Your task to perform on an android device: set the timer Image 0: 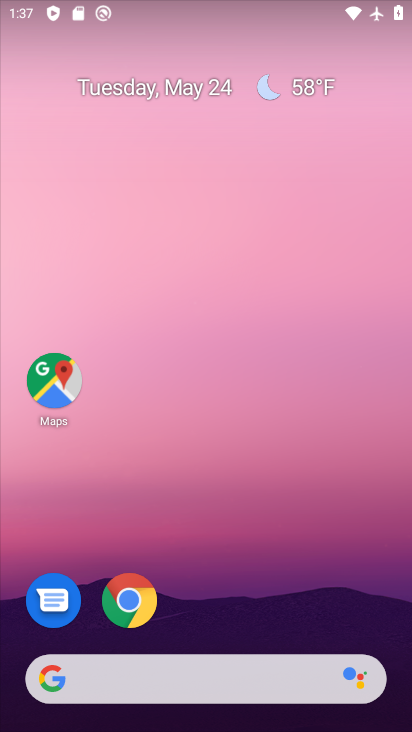
Step 0: drag from (286, 608) to (192, 49)
Your task to perform on an android device: set the timer Image 1: 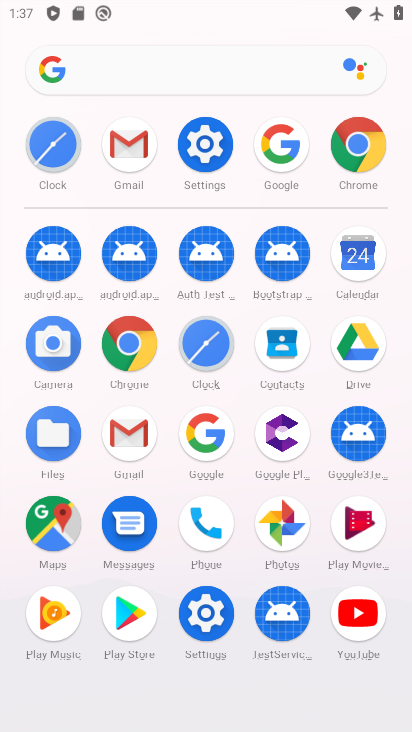
Step 1: click (221, 143)
Your task to perform on an android device: set the timer Image 2: 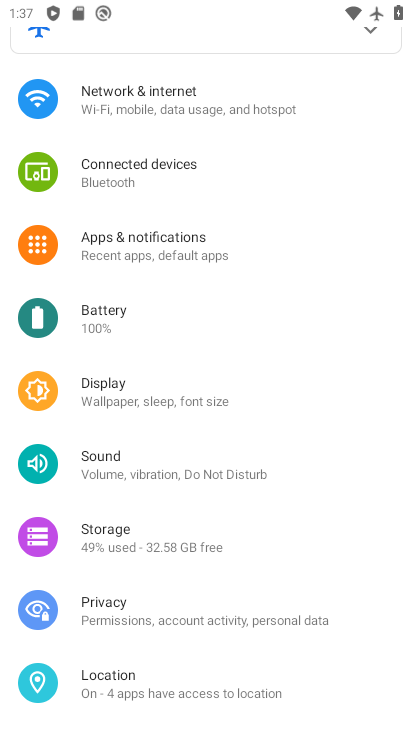
Step 2: press back button
Your task to perform on an android device: set the timer Image 3: 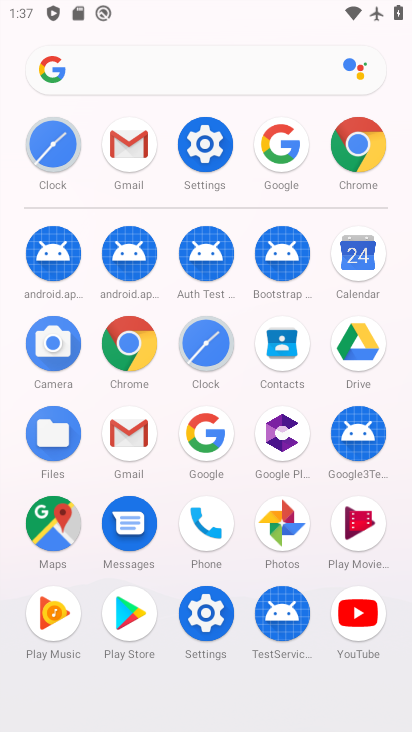
Step 3: click (213, 153)
Your task to perform on an android device: set the timer Image 4: 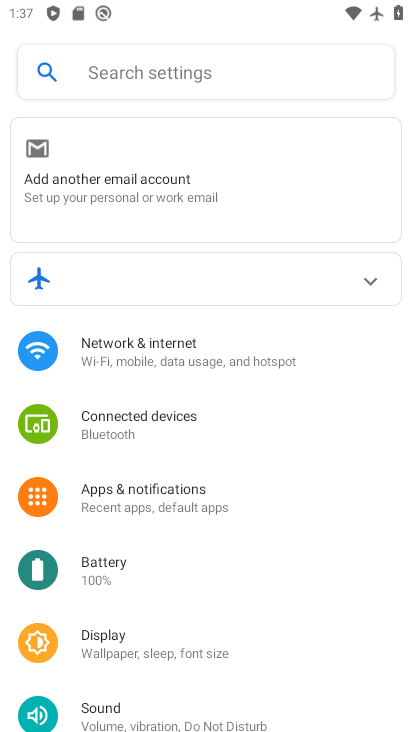
Step 4: drag from (247, 663) to (230, 256)
Your task to perform on an android device: set the timer Image 5: 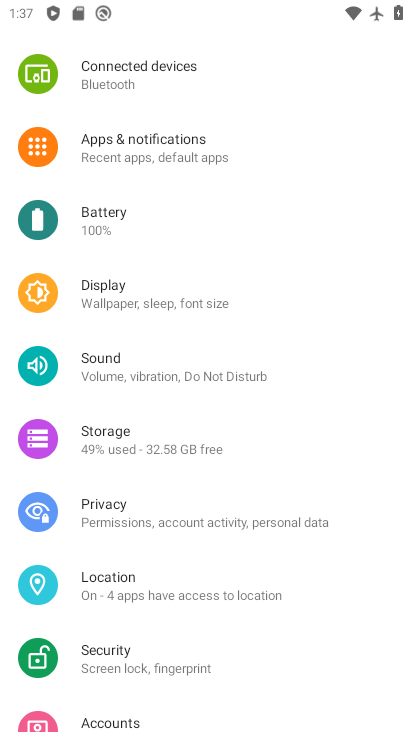
Step 5: press home button
Your task to perform on an android device: set the timer Image 6: 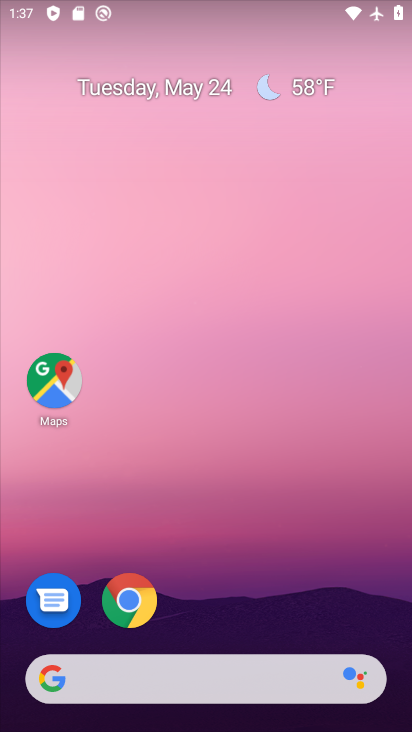
Step 6: drag from (298, 574) to (217, 74)
Your task to perform on an android device: set the timer Image 7: 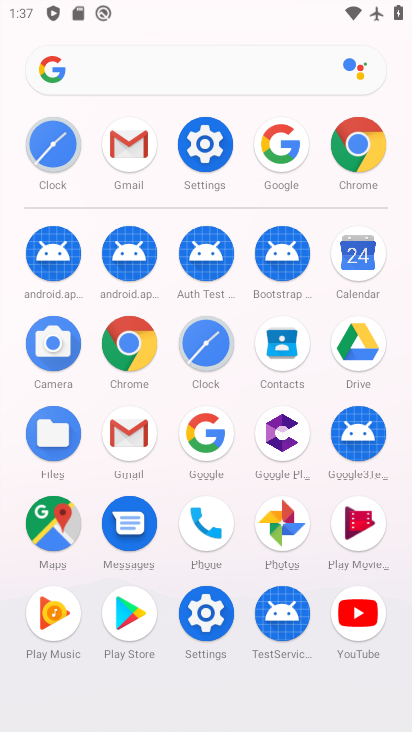
Step 7: click (206, 353)
Your task to perform on an android device: set the timer Image 8: 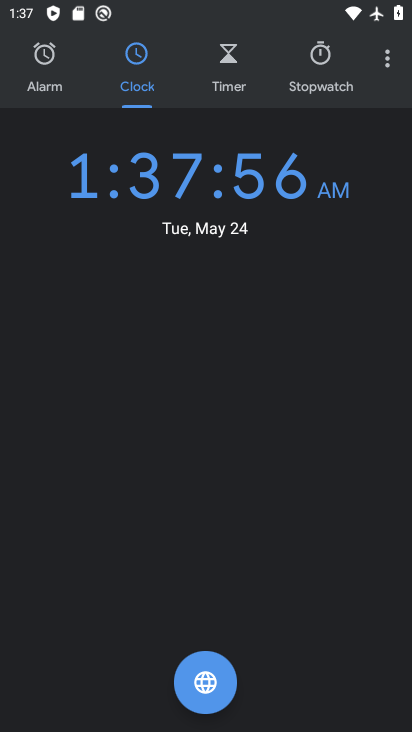
Step 8: click (230, 67)
Your task to perform on an android device: set the timer Image 9: 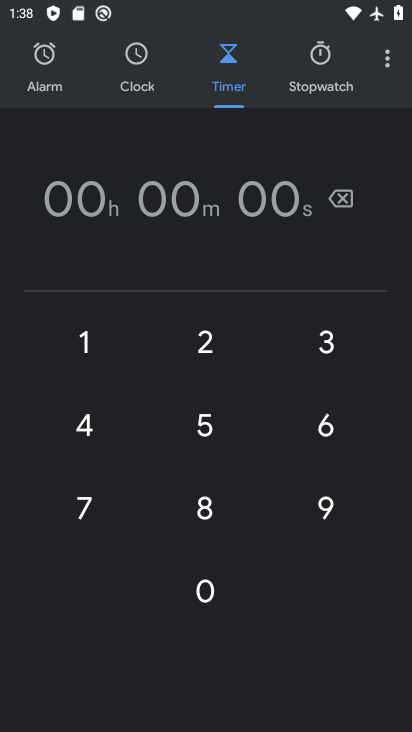
Step 9: click (85, 346)
Your task to perform on an android device: set the timer Image 10: 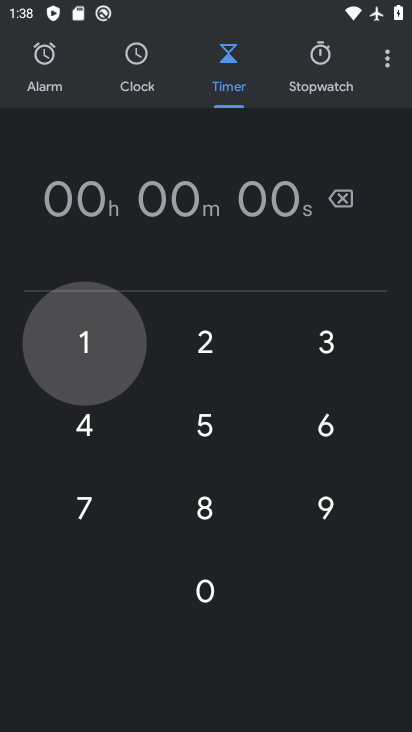
Step 10: click (86, 345)
Your task to perform on an android device: set the timer Image 11: 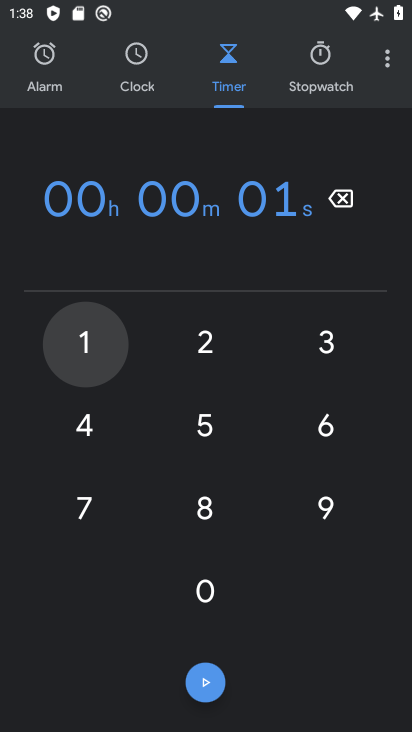
Step 11: click (86, 345)
Your task to perform on an android device: set the timer Image 12: 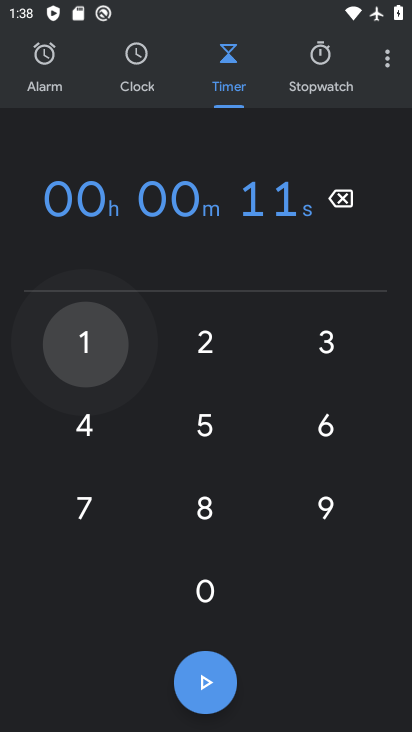
Step 12: click (86, 345)
Your task to perform on an android device: set the timer Image 13: 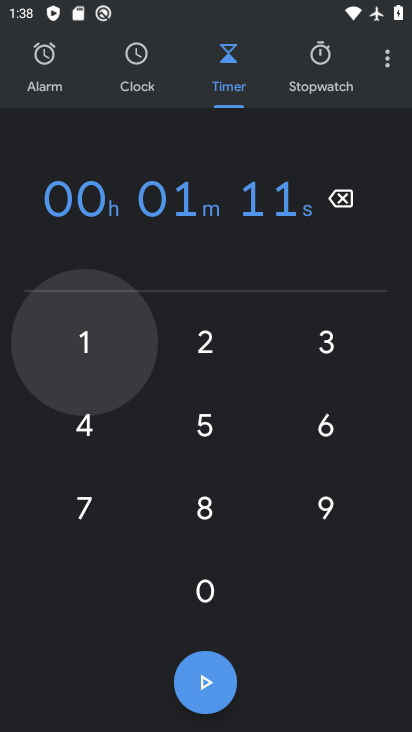
Step 13: click (87, 344)
Your task to perform on an android device: set the timer Image 14: 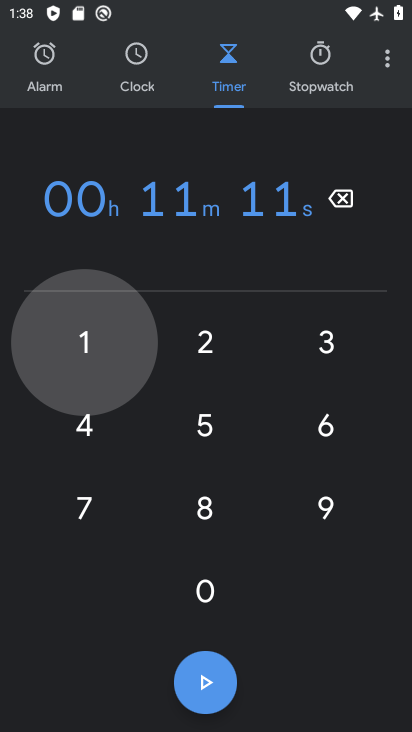
Step 14: click (87, 344)
Your task to perform on an android device: set the timer Image 15: 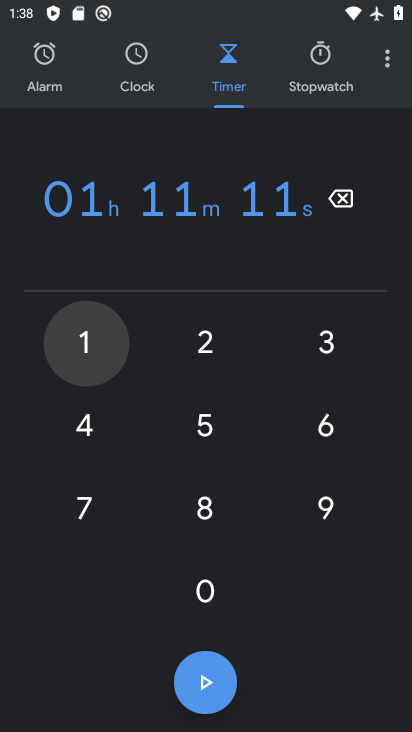
Step 15: click (88, 343)
Your task to perform on an android device: set the timer Image 16: 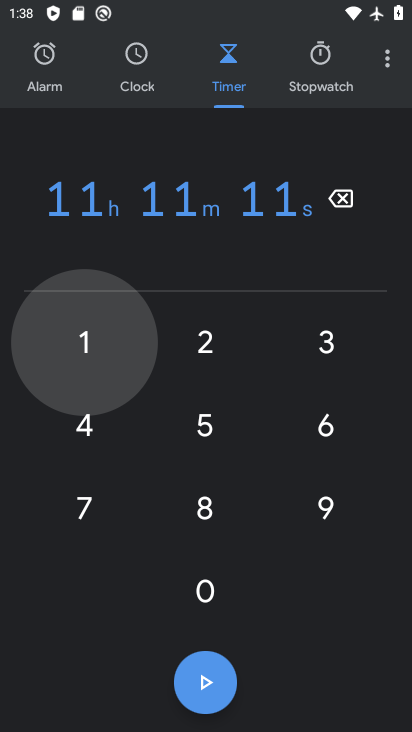
Step 16: click (88, 342)
Your task to perform on an android device: set the timer Image 17: 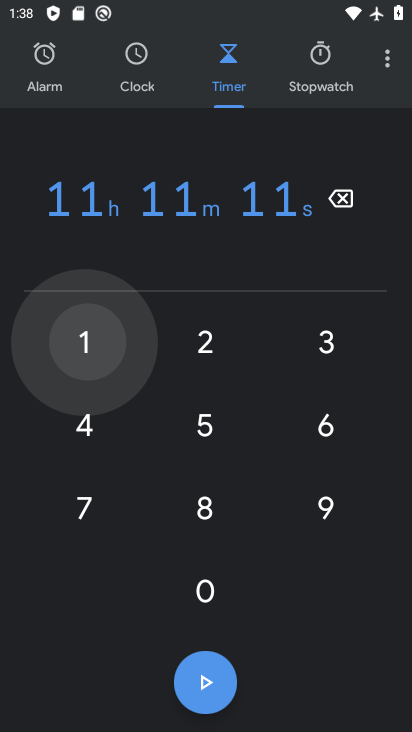
Step 17: click (88, 342)
Your task to perform on an android device: set the timer Image 18: 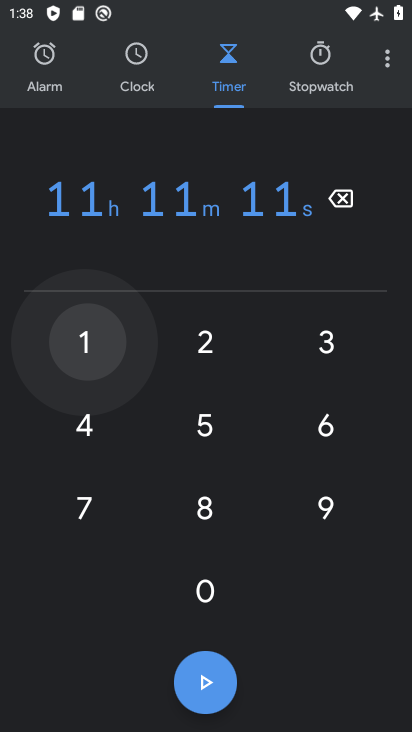
Step 18: click (88, 341)
Your task to perform on an android device: set the timer Image 19: 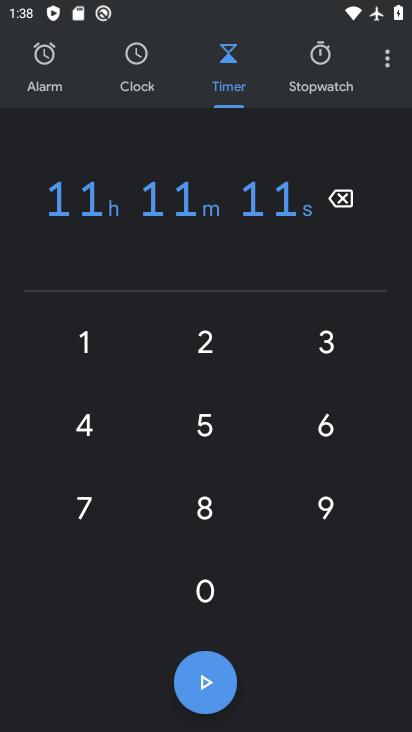
Step 19: click (200, 680)
Your task to perform on an android device: set the timer Image 20: 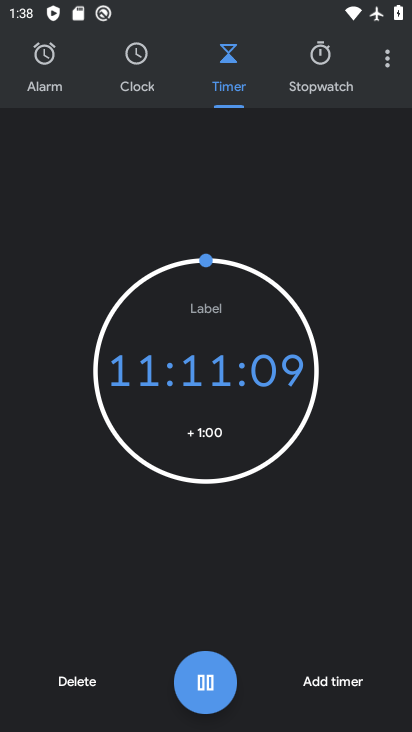
Step 20: task complete